Your task to perform on an android device: add a contact in the contacts app Image 0: 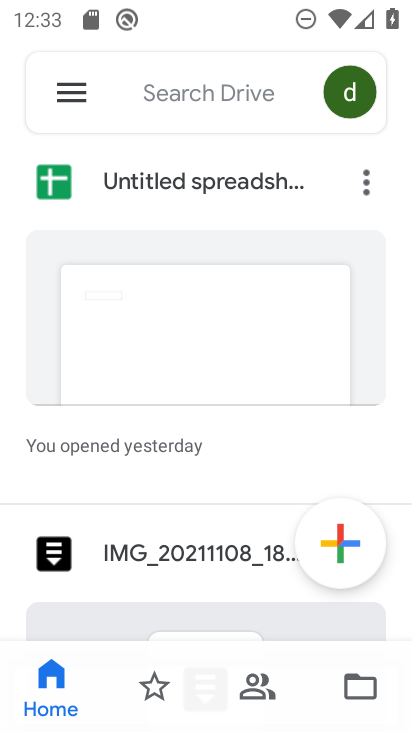
Step 0: press home button
Your task to perform on an android device: add a contact in the contacts app Image 1: 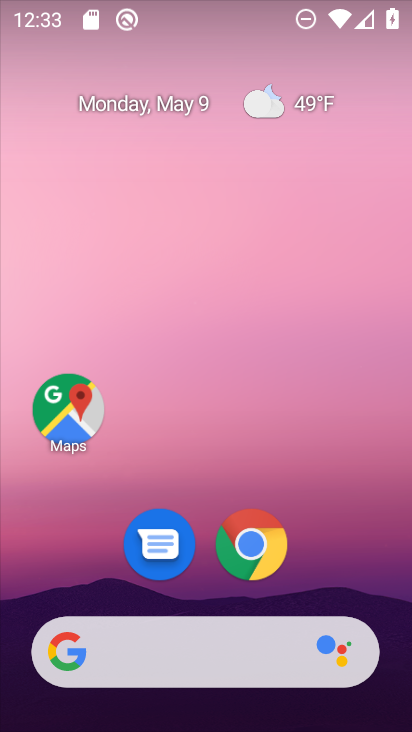
Step 1: drag from (331, 539) to (286, 116)
Your task to perform on an android device: add a contact in the contacts app Image 2: 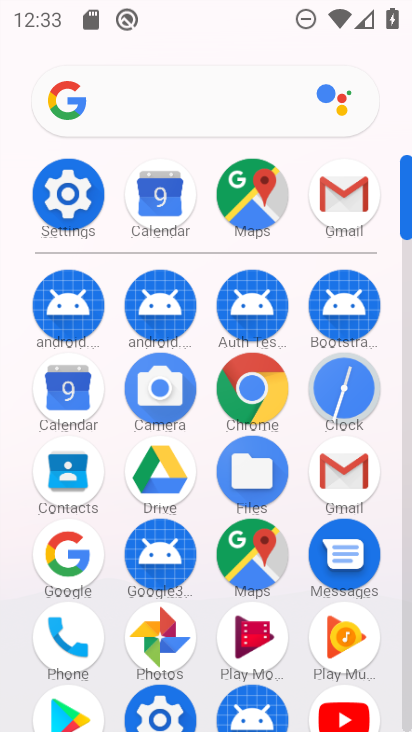
Step 2: click (59, 647)
Your task to perform on an android device: add a contact in the contacts app Image 3: 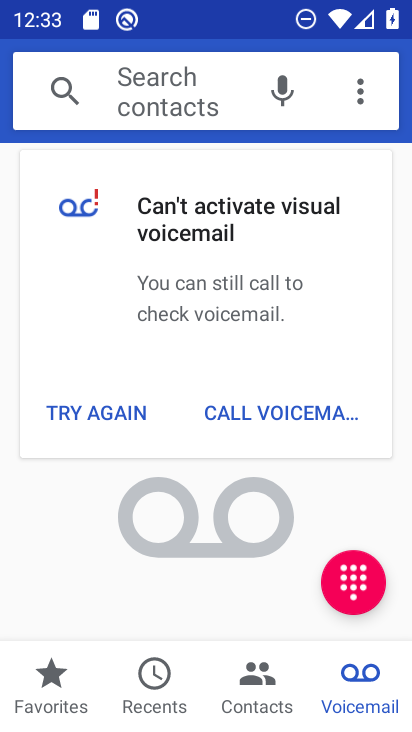
Step 3: click (251, 684)
Your task to perform on an android device: add a contact in the contacts app Image 4: 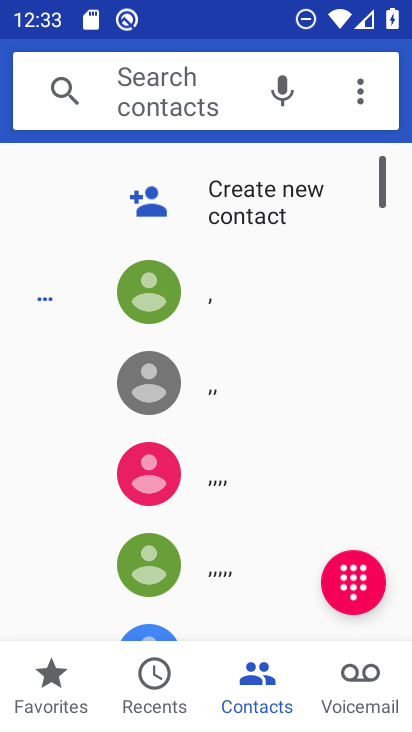
Step 4: click (267, 217)
Your task to perform on an android device: add a contact in the contacts app Image 5: 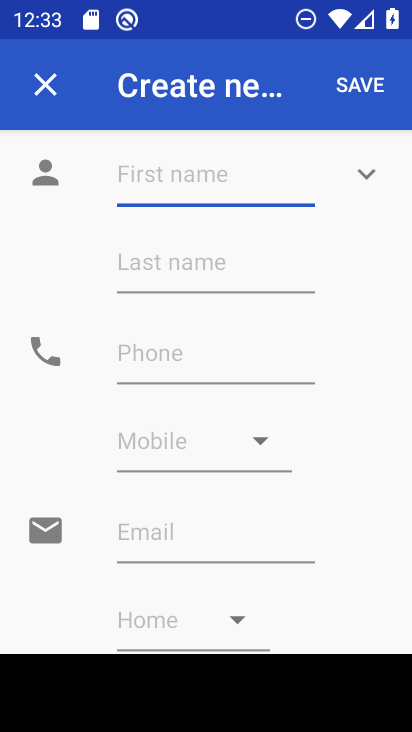
Step 5: type "eria"
Your task to perform on an android device: add a contact in the contacts app Image 6: 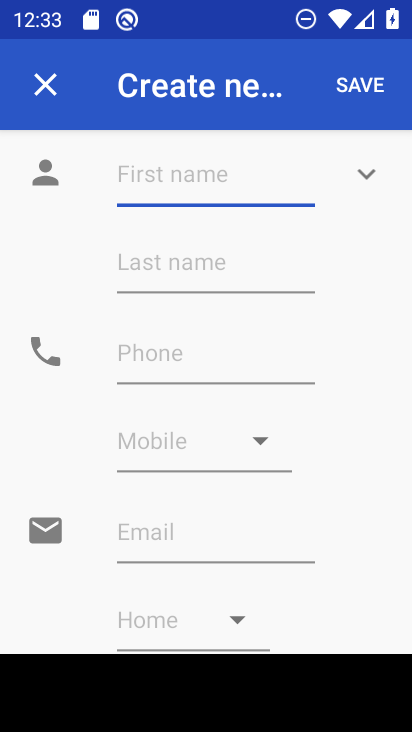
Step 6: click (206, 369)
Your task to perform on an android device: add a contact in the contacts app Image 7: 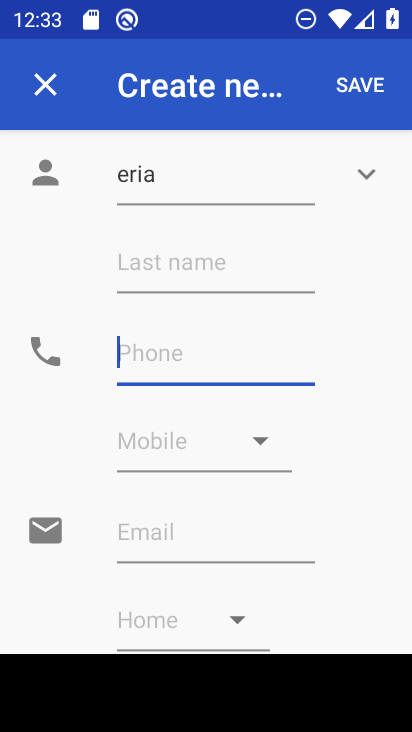
Step 7: type "8765434444"
Your task to perform on an android device: add a contact in the contacts app Image 8: 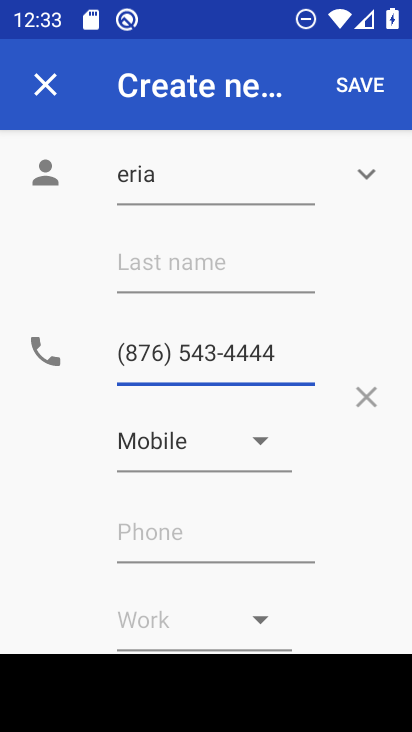
Step 8: click (375, 91)
Your task to perform on an android device: add a contact in the contacts app Image 9: 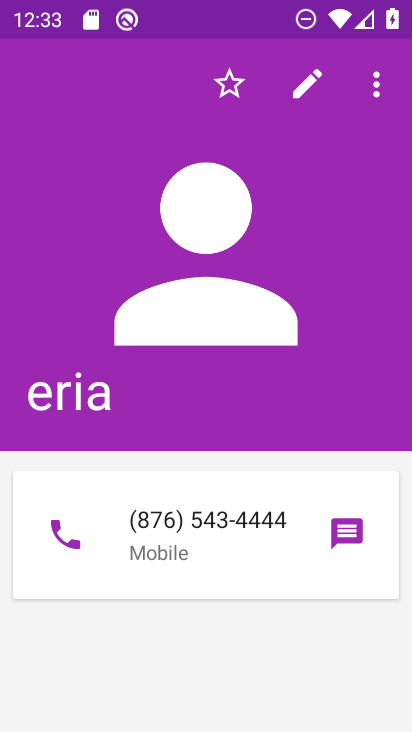
Step 9: task complete